Your task to perform on an android device: check the backup settings in the google photos Image 0: 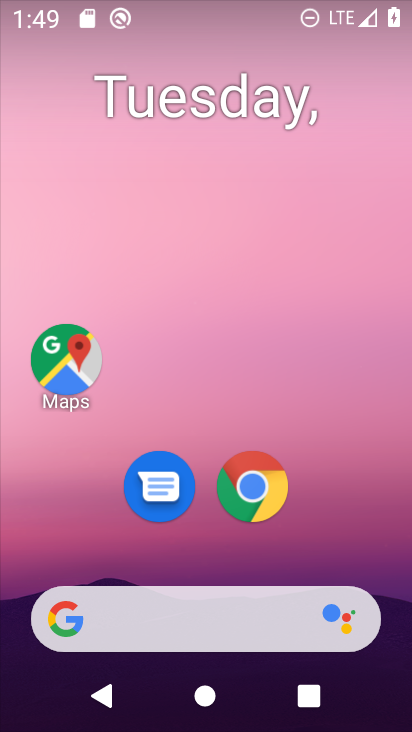
Step 0: drag from (193, 565) to (262, 173)
Your task to perform on an android device: check the backup settings in the google photos Image 1: 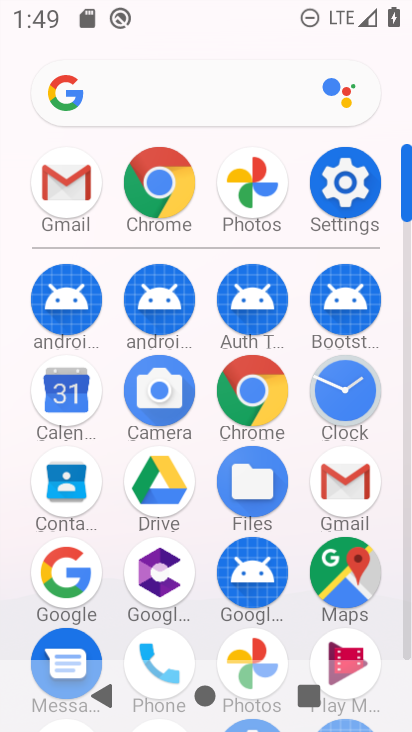
Step 1: click (249, 645)
Your task to perform on an android device: check the backup settings in the google photos Image 2: 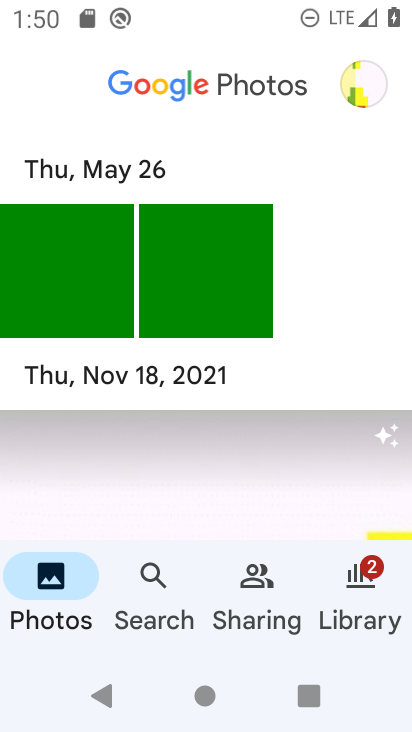
Step 2: click (363, 94)
Your task to perform on an android device: check the backup settings in the google photos Image 3: 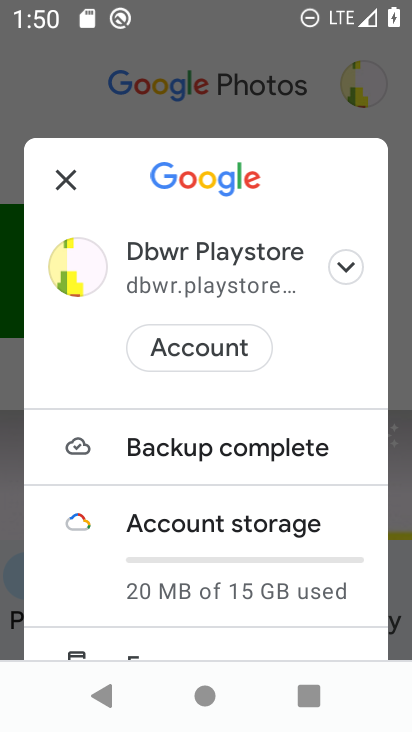
Step 3: click (217, 448)
Your task to perform on an android device: check the backup settings in the google photos Image 4: 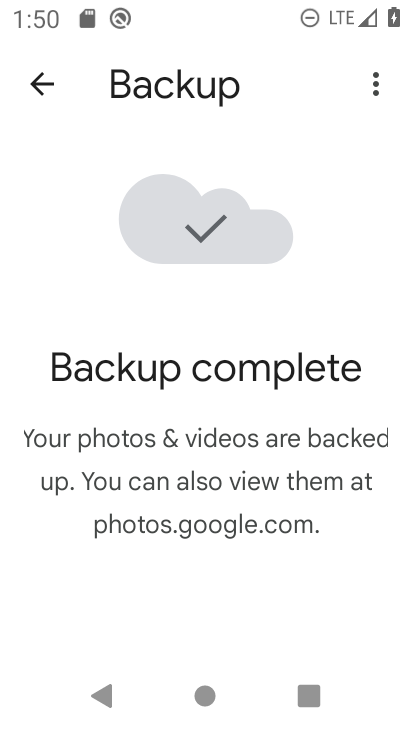
Step 4: task complete